Your task to perform on an android device: Open Google Image 0: 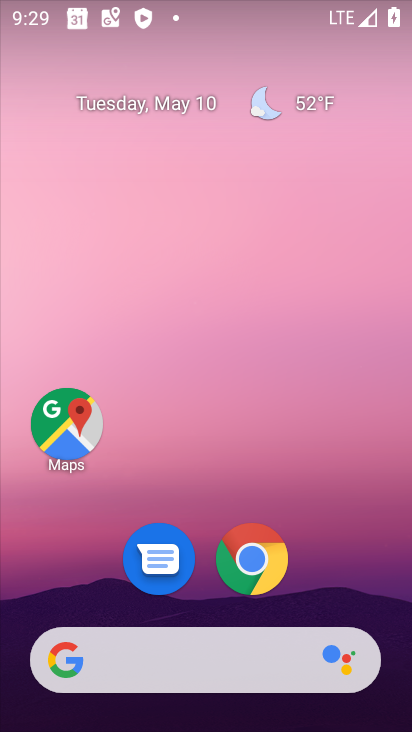
Step 0: drag from (331, 563) to (261, 2)
Your task to perform on an android device: Open Google Image 1: 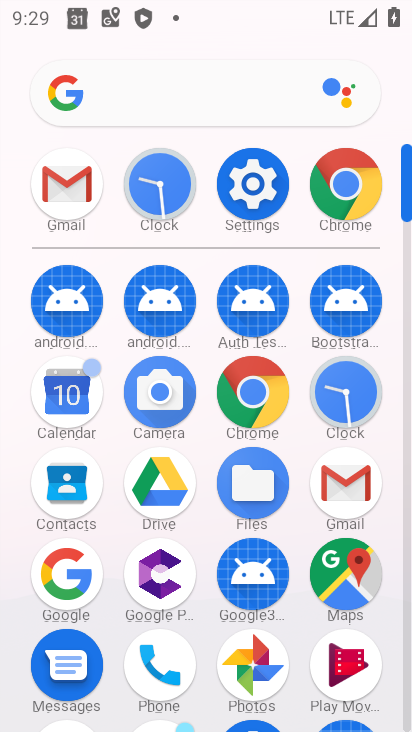
Step 1: click (350, 177)
Your task to perform on an android device: Open Google Image 2: 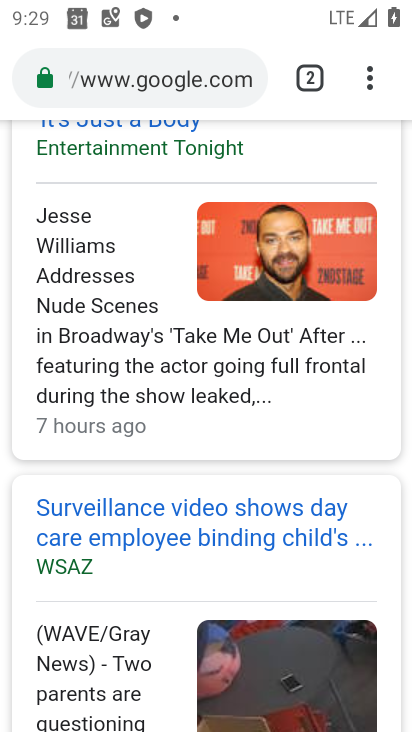
Step 2: click (192, 73)
Your task to perform on an android device: Open Google Image 3: 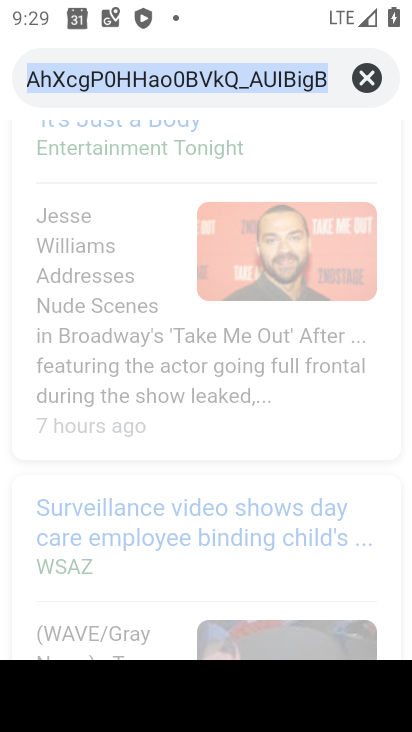
Step 3: click (365, 74)
Your task to perform on an android device: Open Google Image 4: 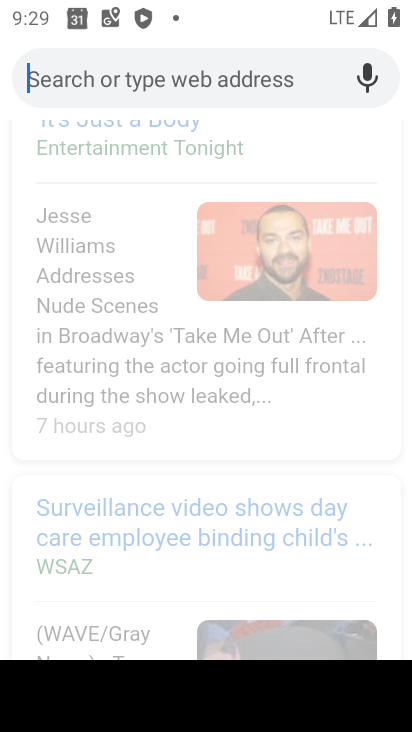
Step 4: type " Google"
Your task to perform on an android device: Open Google Image 5: 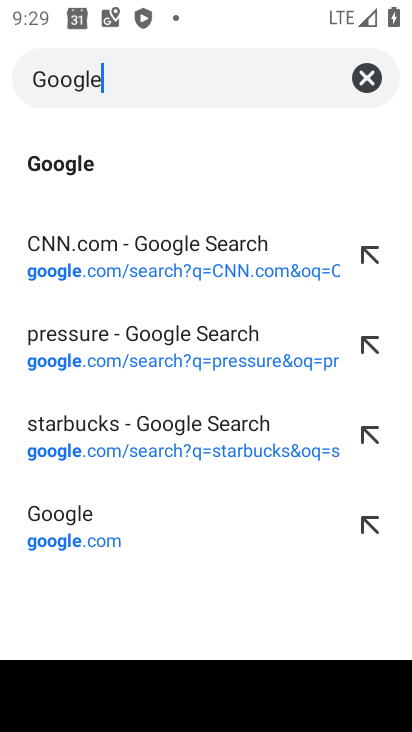
Step 5: type ""
Your task to perform on an android device: Open Google Image 6: 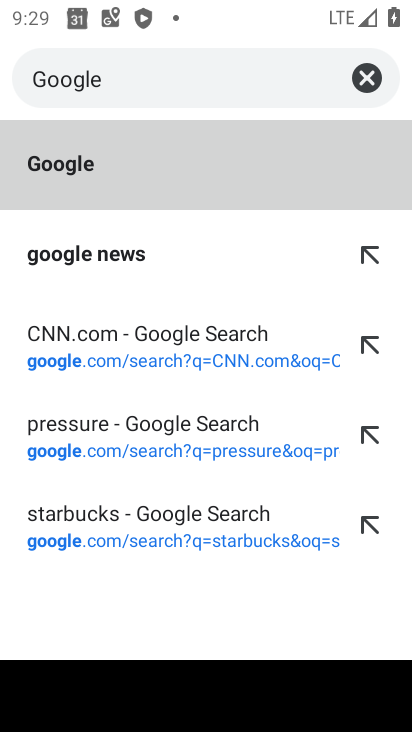
Step 6: click (127, 168)
Your task to perform on an android device: Open Google Image 7: 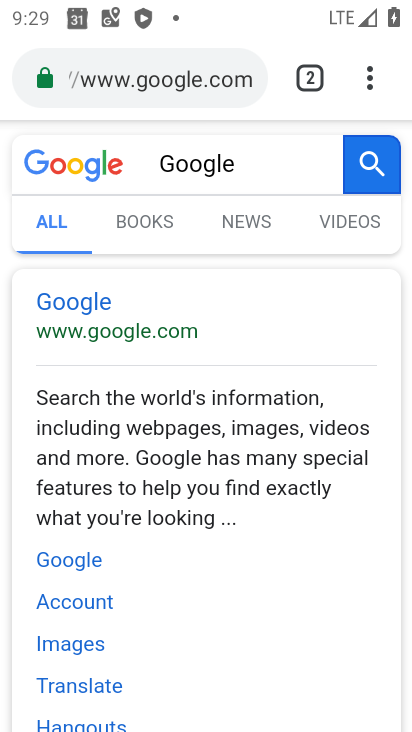
Step 7: click (56, 281)
Your task to perform on an android device: Open Google Image 8: 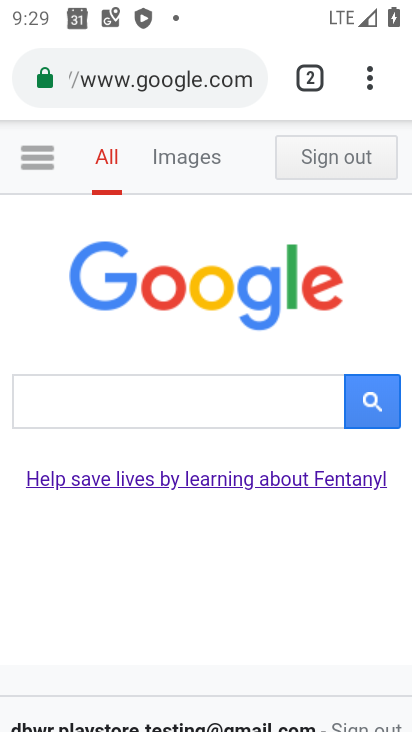
Step 8: task complete